Your task to perform on an android device: see creations saved in the google photos Image 0: 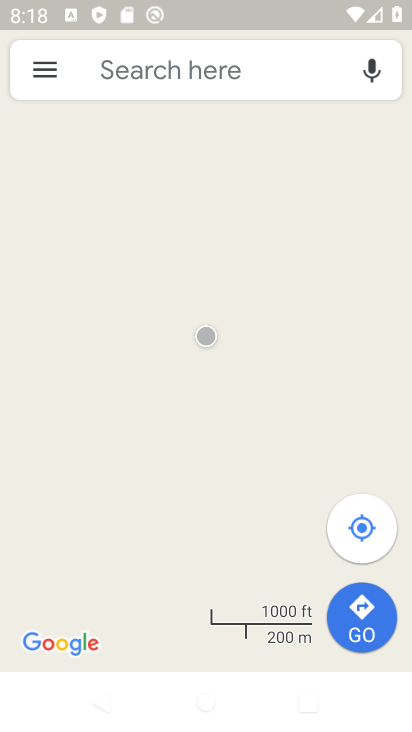
Step 0: press home button
Your task to perform on an android device: see creations saved in the google photos Image 1: 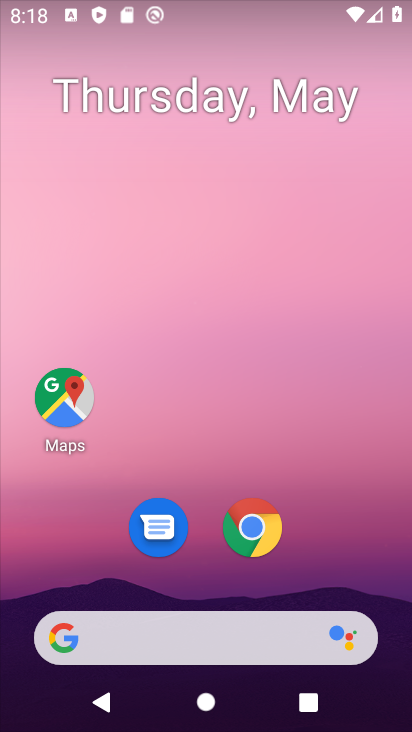
Step 1: drag from (53, 438) to (151, 136)
Your task to perform on an android device: see creations saved in the google photos Image 2: 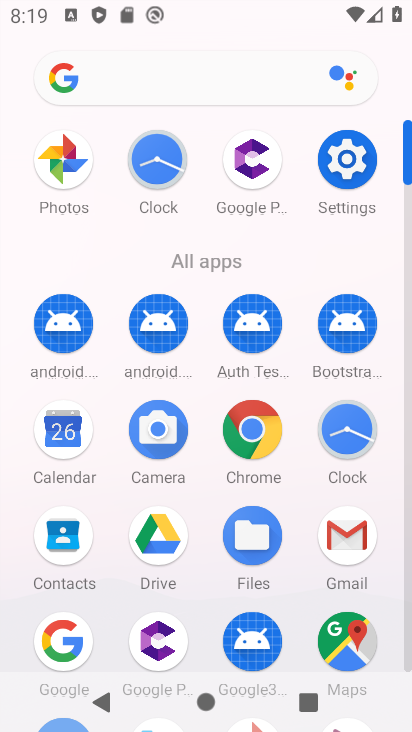
Step 2: click (64, 165)
Your task to perform on an android device: see creations saved in the google photos Image 3: 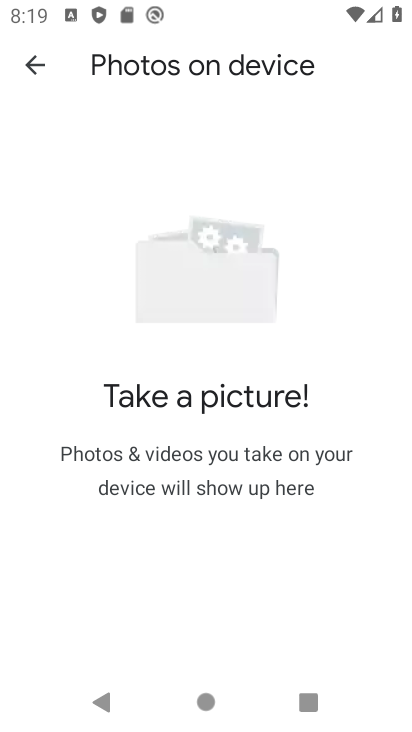
Step 3: click (46, 70)
Your task to perform on an android device: see creations saved in the google photos Image 4: 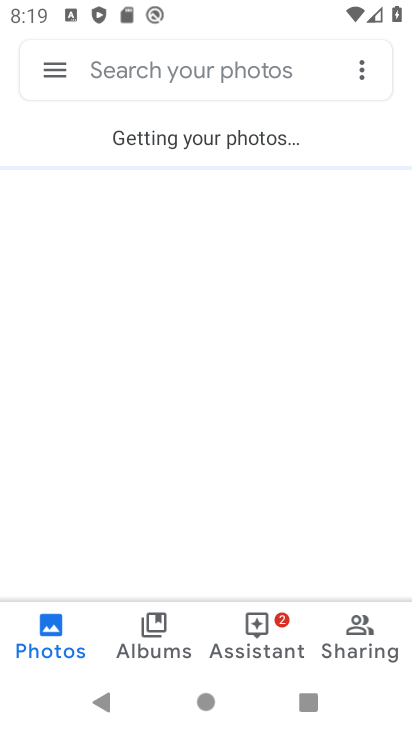
Step 4: click (48, 69)
Your task to perform on an android device: see creations saved in the google photos Image 5: 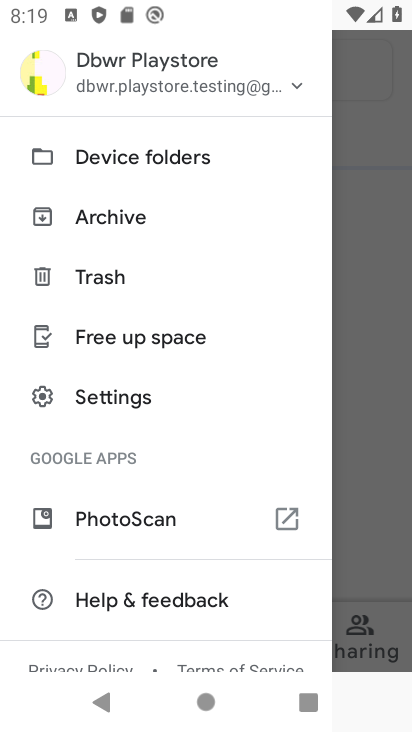
Step 5: click (399, 239)
Your task to perform on an android device: see creations saved in the google photos Image 6: 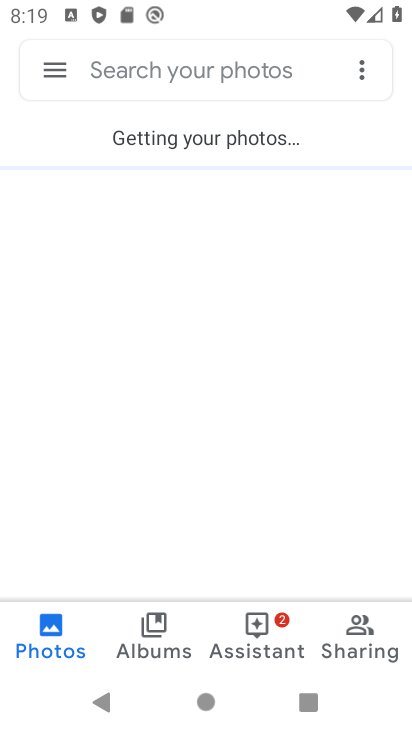
Step 6: click (193, 71)
Your task to perform on an android device: see creations saved in the google photos Image 7: 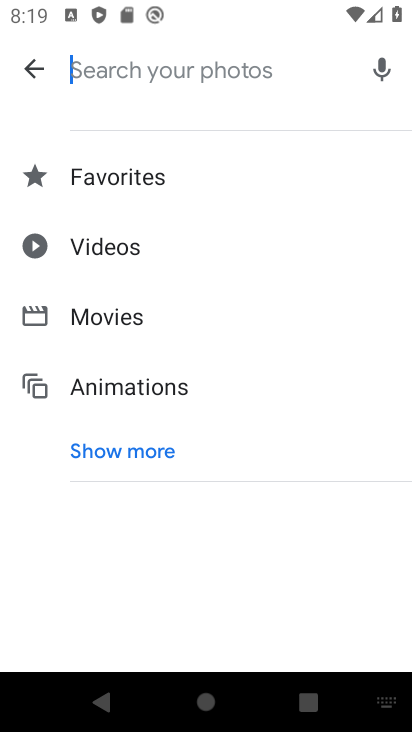
Step 7: click (78, 447)
Your task to perform on an android device: see creations saved in the google photos Image 8: 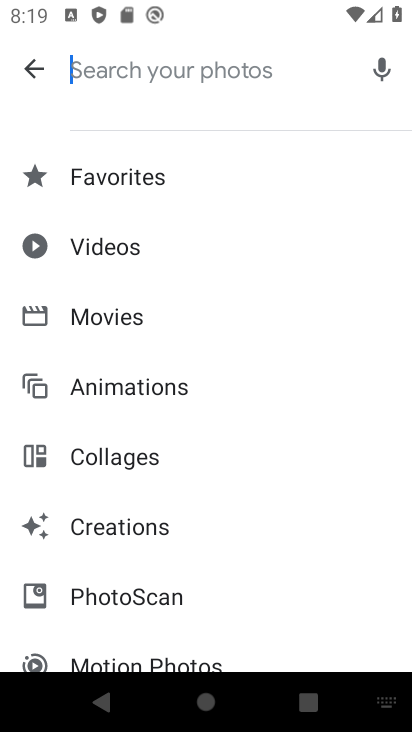
Step 8: click (105, 525)
Your task to perform on an android device: see creations saved in the google photos Image 9: 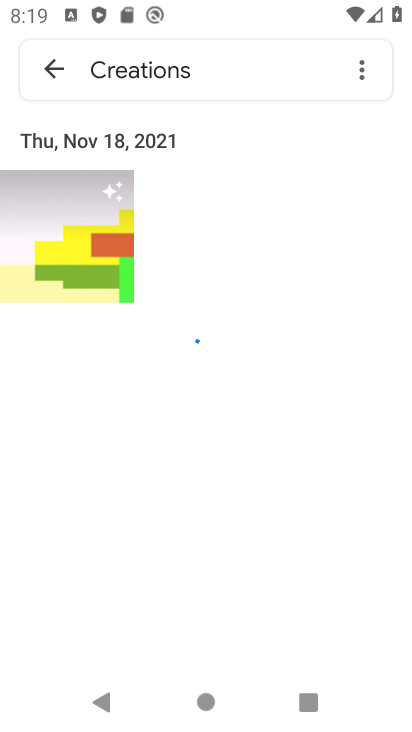
Step 9: task complete